Your task to perform on an android device: open app "Pinterest" Image 0: 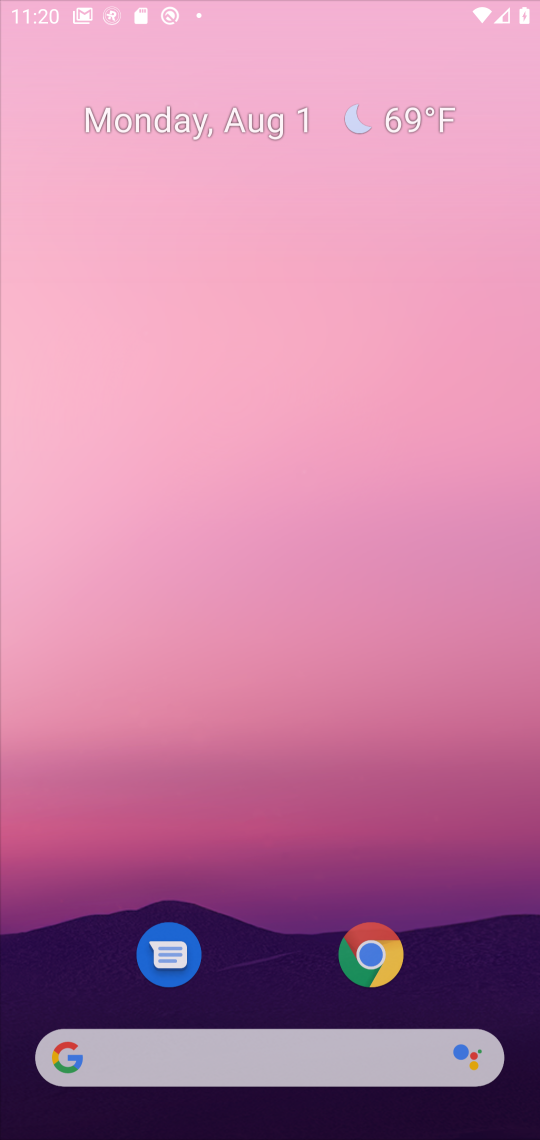
Step 0: click (428, 414)
Your task to perform on an android device: open app "Pinterest" Image 1: 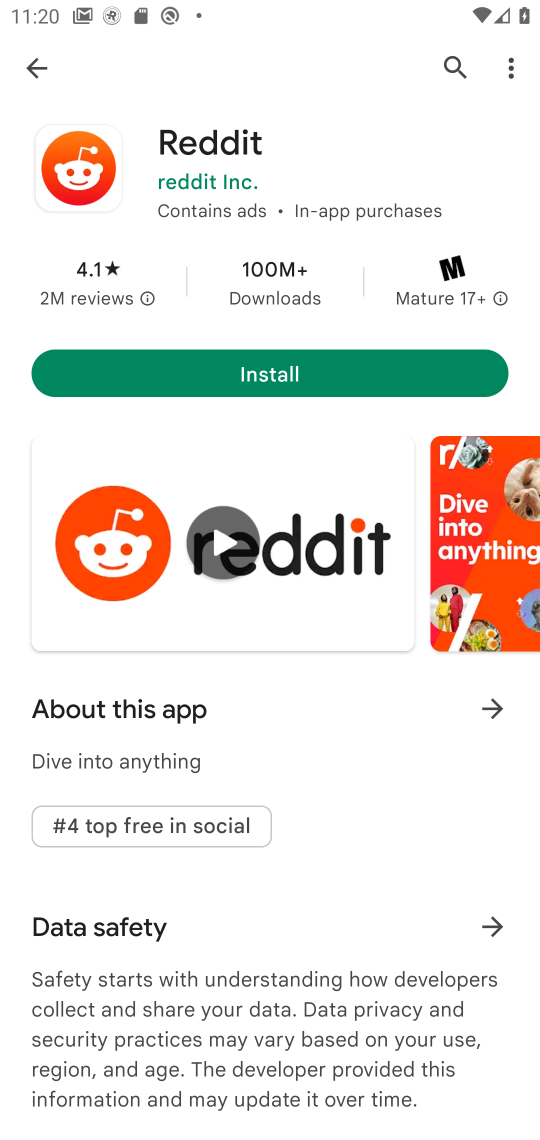
Step 1: click (34, 72)
Your task to perform on an android device: open app "Pinterest" Image 2: 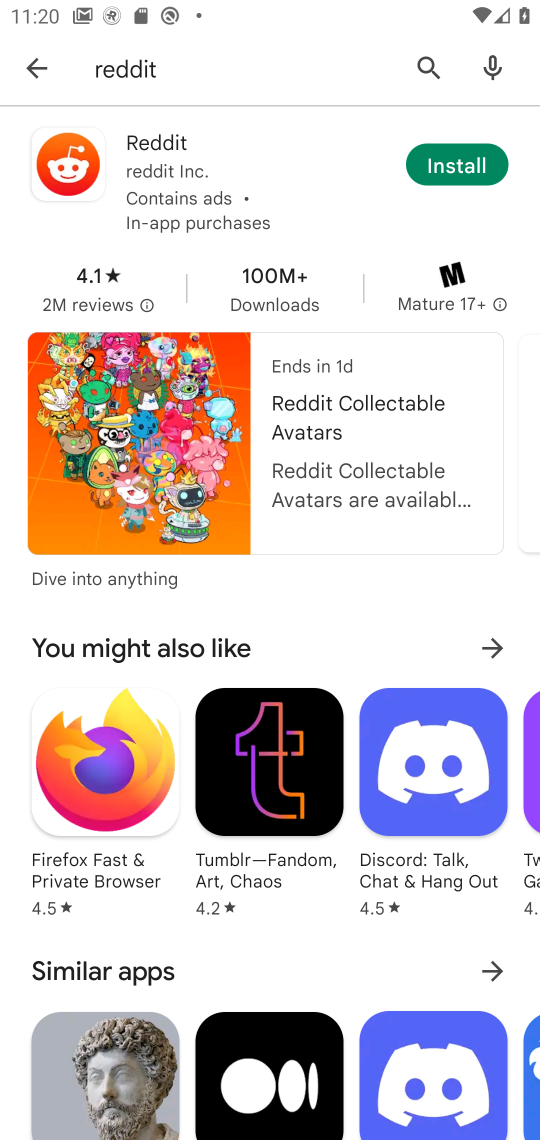
Step 2: click (206, 79)
Your task to perform on an android device: open app "Pinterest" Image 3: 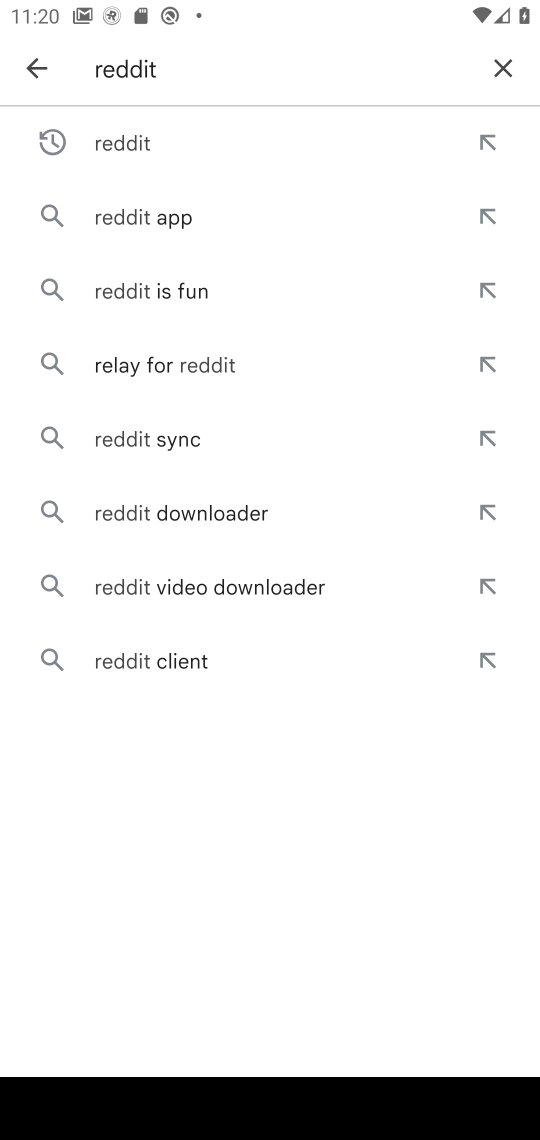
Step 3: click (506, 69)
Your task to perform on an android device: open app "Pinterest" Image 4: 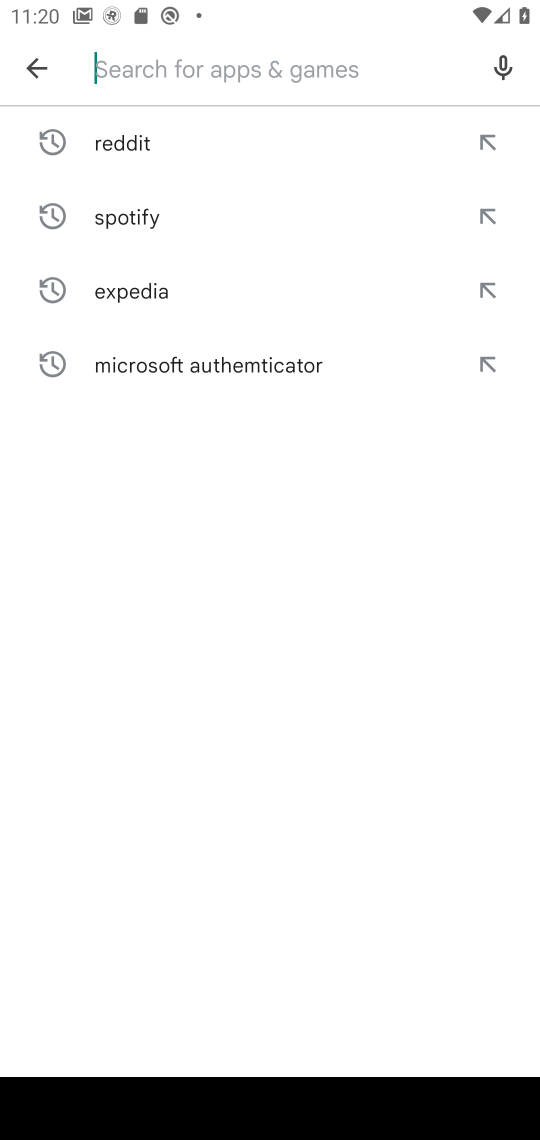
Step 4: type "Pinterest"
Your task to perform on an android device: open app "Pinterest" Image 5: 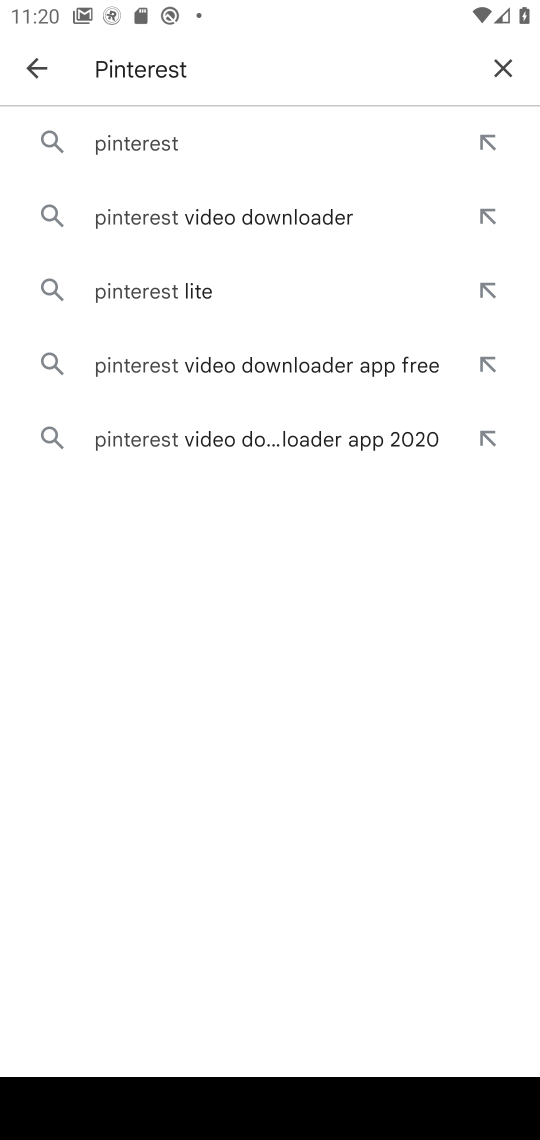
Step 5: click (169, 137)
Your task to perform on an android device: open app "Pinterest" Image 6: 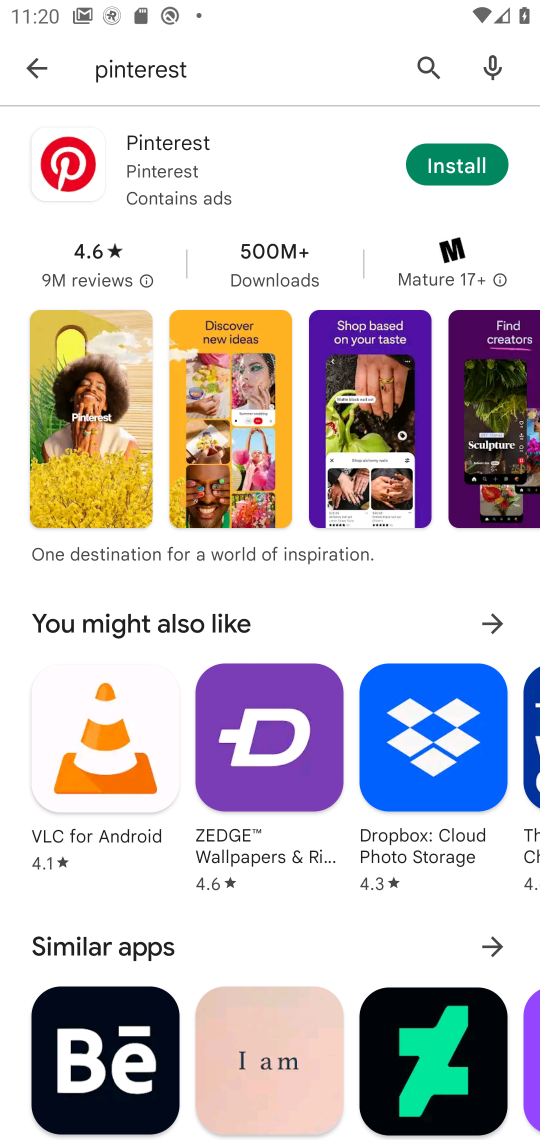
Step 6: task complete